Your task to perform on an android device: Open Yahoo.com Image 0: 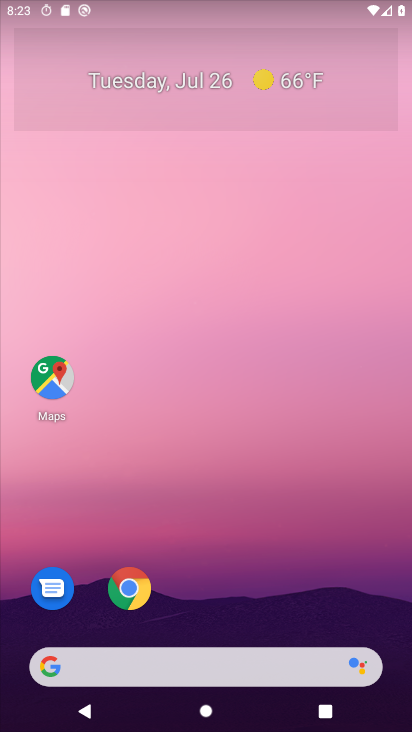
Step 0: click (130, 587)
Your task to perform on an android device: Open Yahoo.com Image 1: 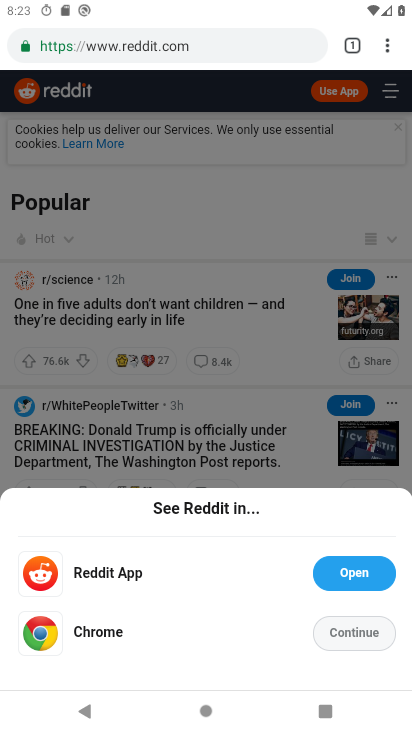
Step 1: click (385, 50)
Your task to perform on an android device: Open Yahoo.com Image 2: 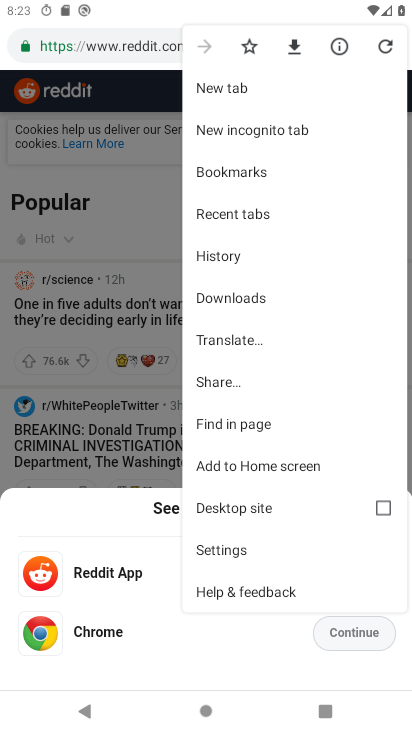
Step 2: click (234, 86)
Your task to perform on an android device: Open Yahoo.com Image 3: 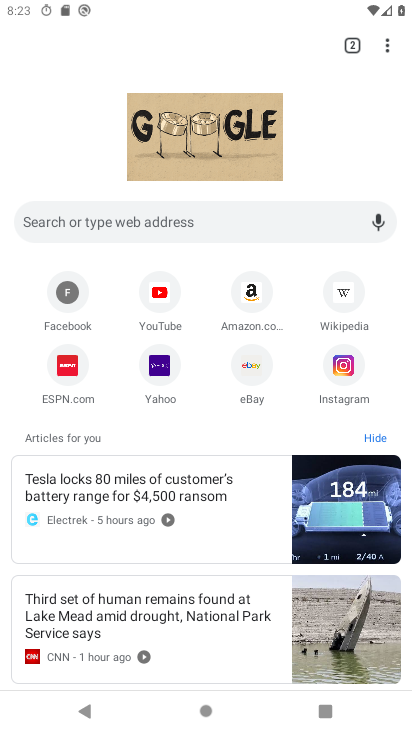
Step 3: click (159, 369)
Your task to perform on an android device: Open Yahoo.com Image 4: 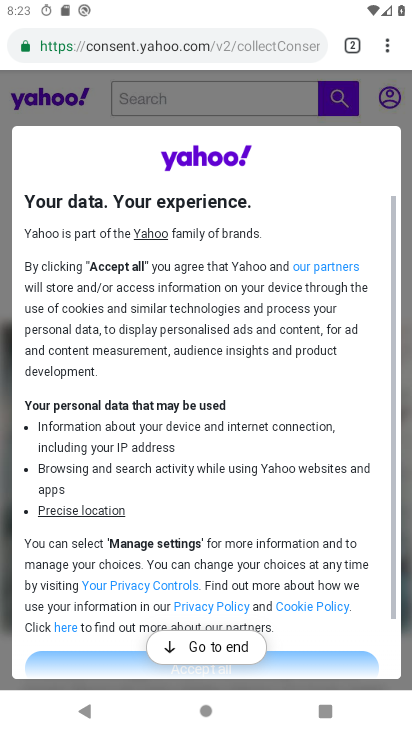
Step 4: click (291, 670)
Your task to perform on an android device: Open Yahoo.com Image 5: 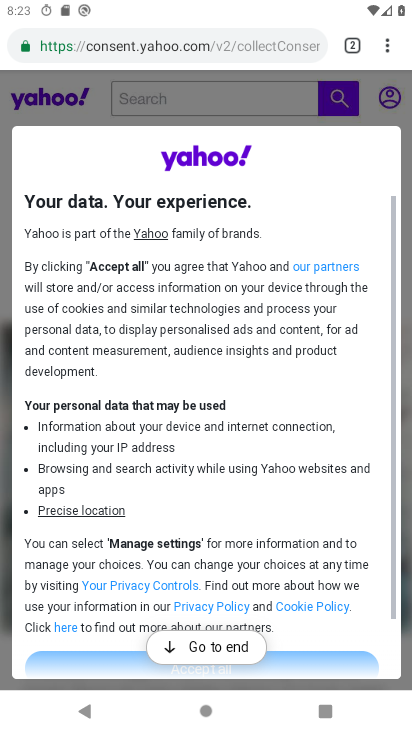
Step 5: click (187, 644)
Your task to perform on an android device: Open Yahoo.com Image 6: 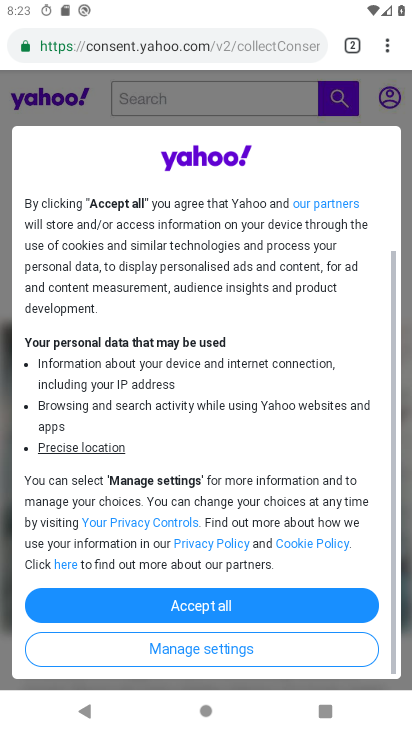
Step 6: click (206, 601)
Your task to perform on an android device: Open Yahoo.com Image 7: 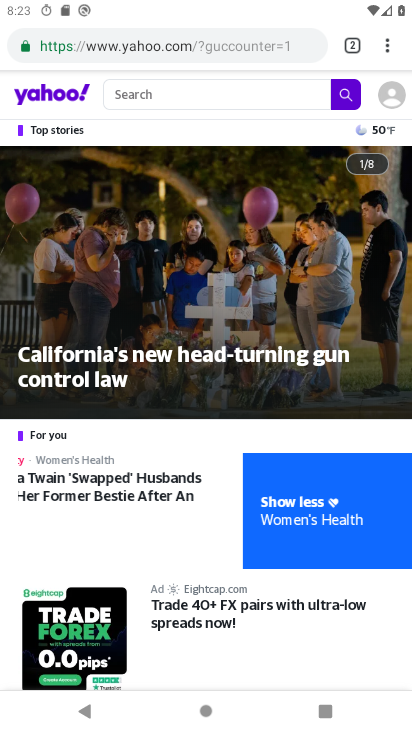
Step 7: task complete